Your task to perform on an android device: Open the stopwatch Image 0: 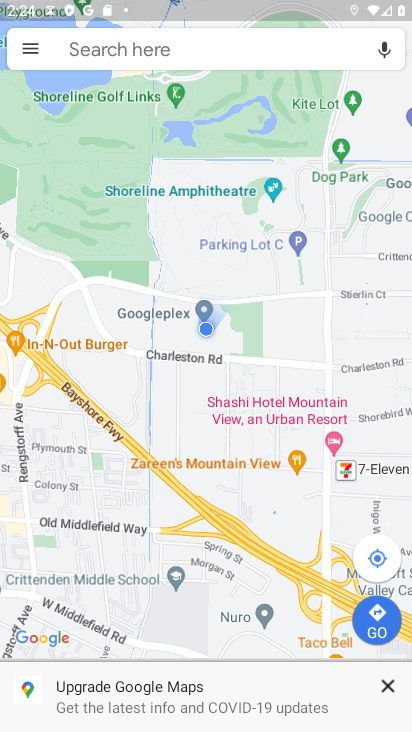
Step 0: press home button
Your task to perform on an android device: Open the stopwatch Image 1: 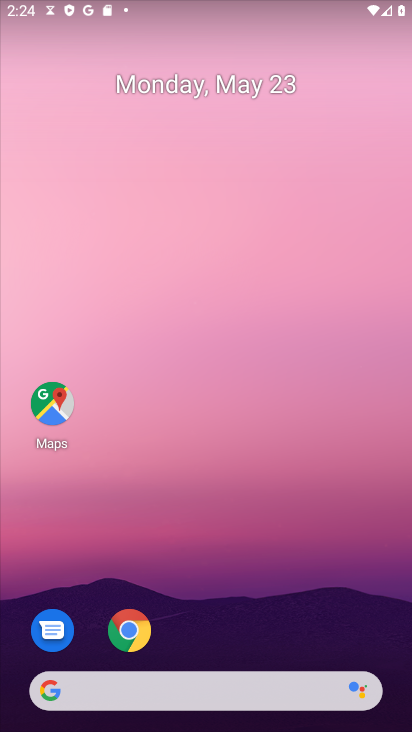
Step 1: drag from (288, 605) to (293, 60)
Your task to perform on an android device: Open the stopwatch Image 2: 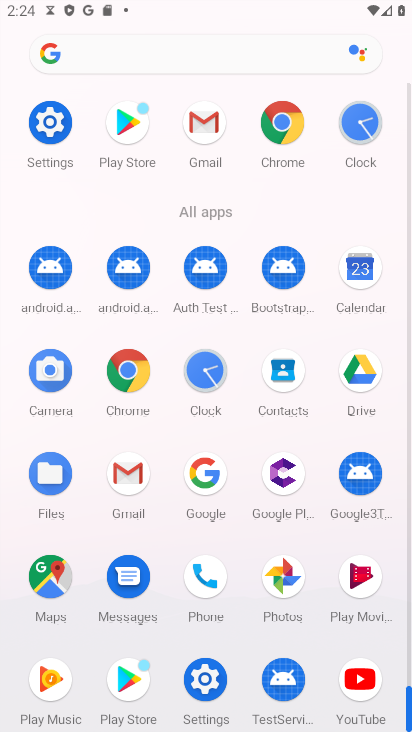
Step 2: click (364, 135)
Your task to perform on an android device: Open the stopwatch Image 3: 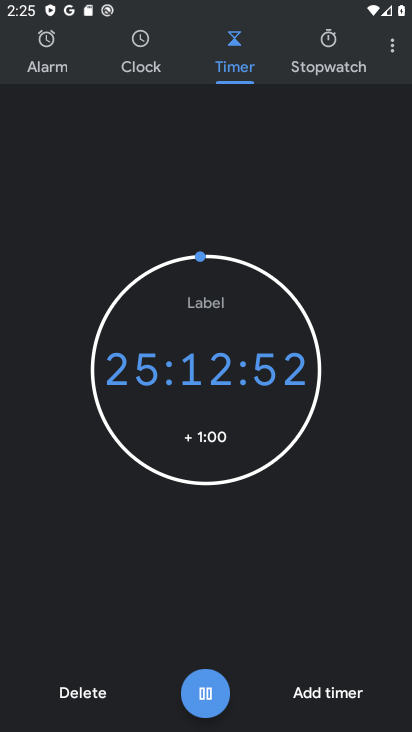
Step 3: click (349, 36)
Your task to perform on an android device: Open the stopwatch Image 4: 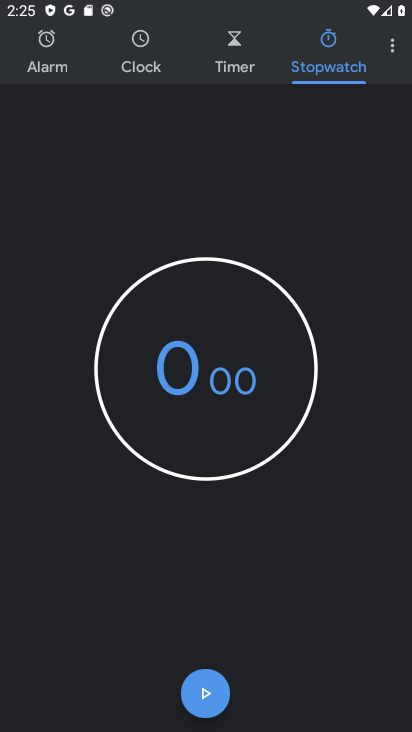
Step 4: click (213, 700)
Your task to perform on an android device: Open the stopwatch Image 5: 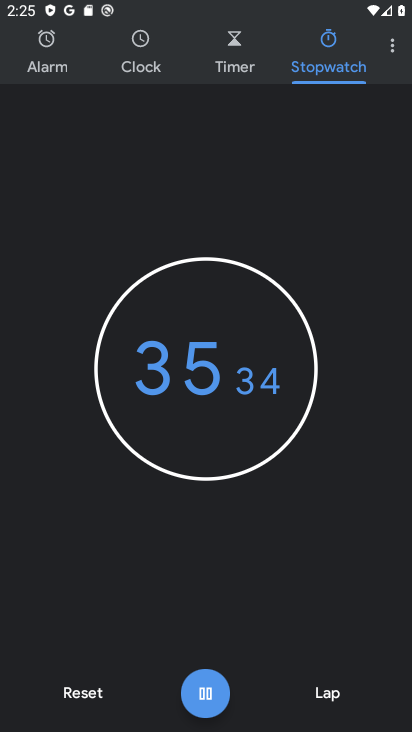
Step 5: task complete